Your task to perform on an android device: open app "PUBG MOBILE" (install if not already installed) Image 0: 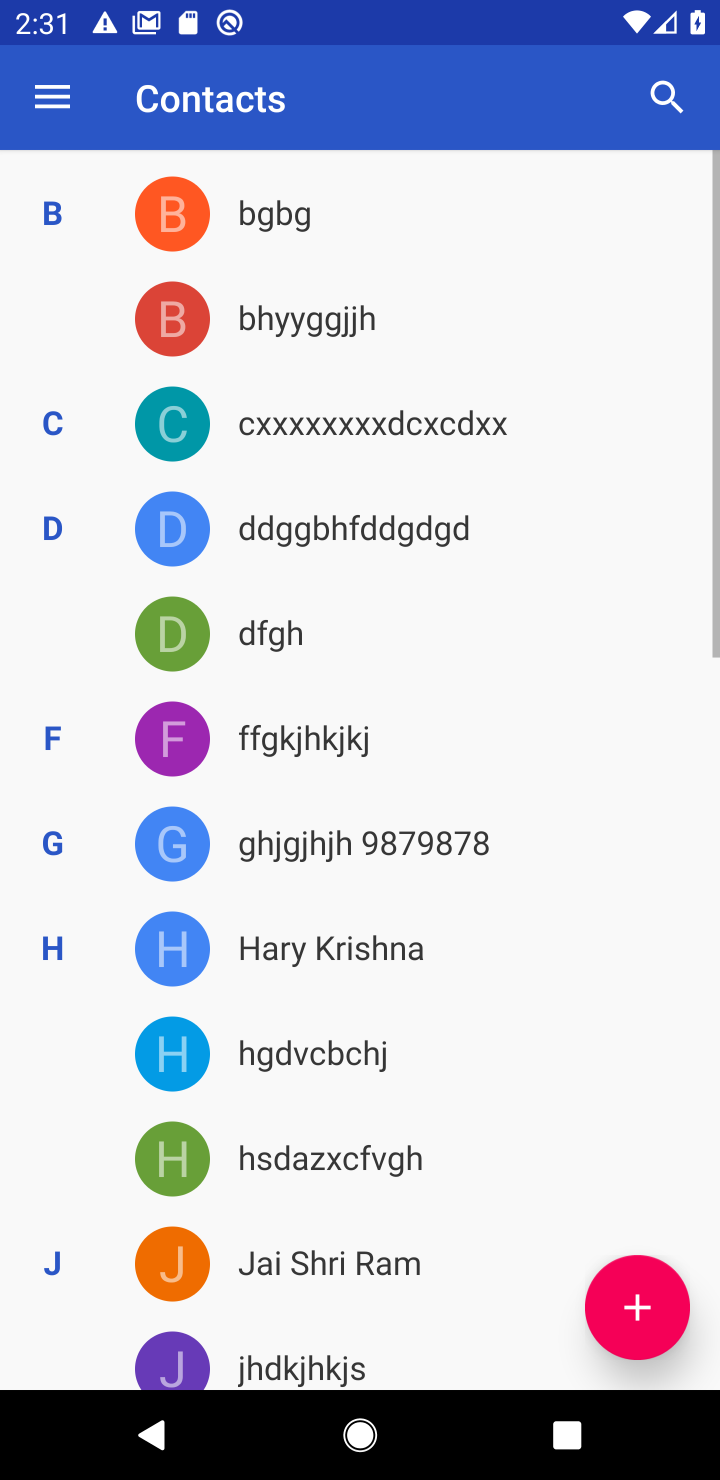
Step 0: press home button
Your task to perform on an android device: open app "PUBG MOBILE" (install if not already installed) Image 1: 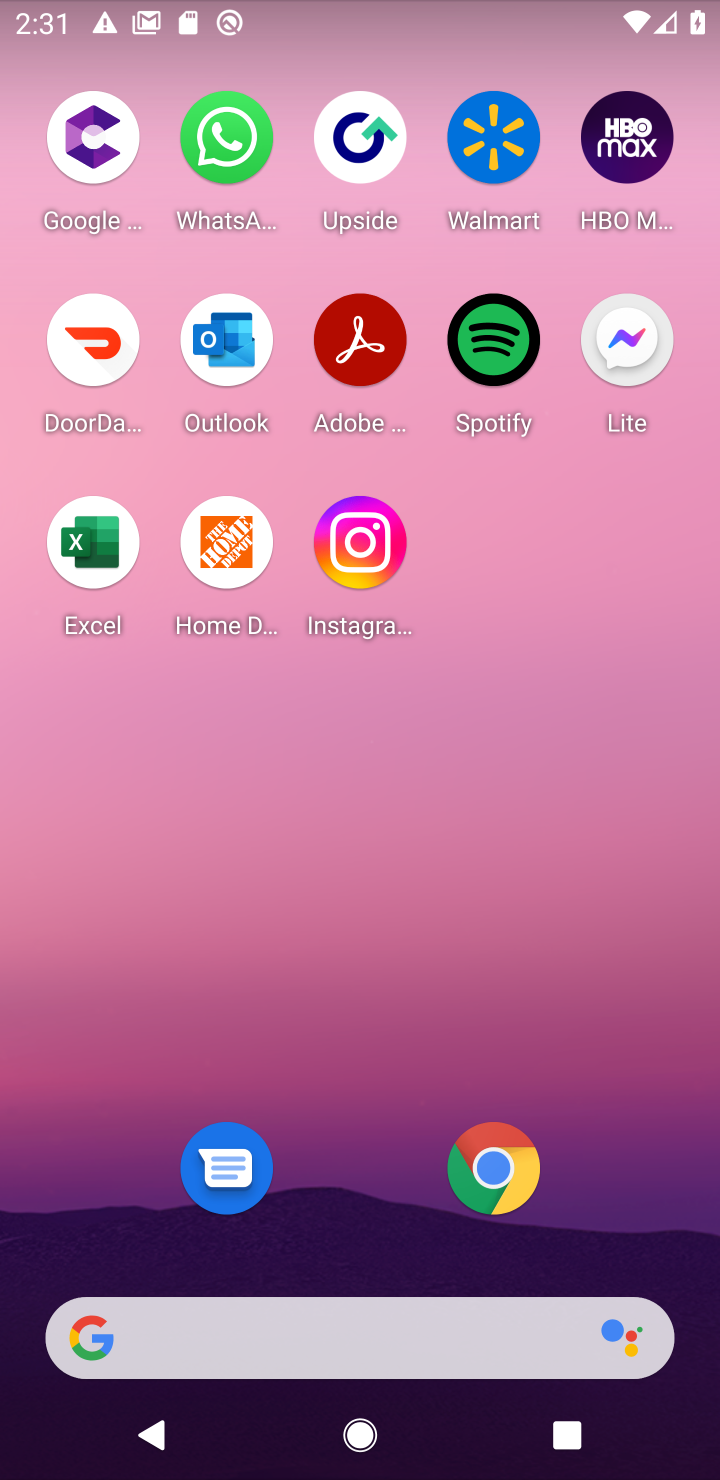
Step 1: drag from (331, 1299) to (419, 105)
Your task to perform on an android device: open app "PUBG MOBILE" (install if not already installed) Image 2: 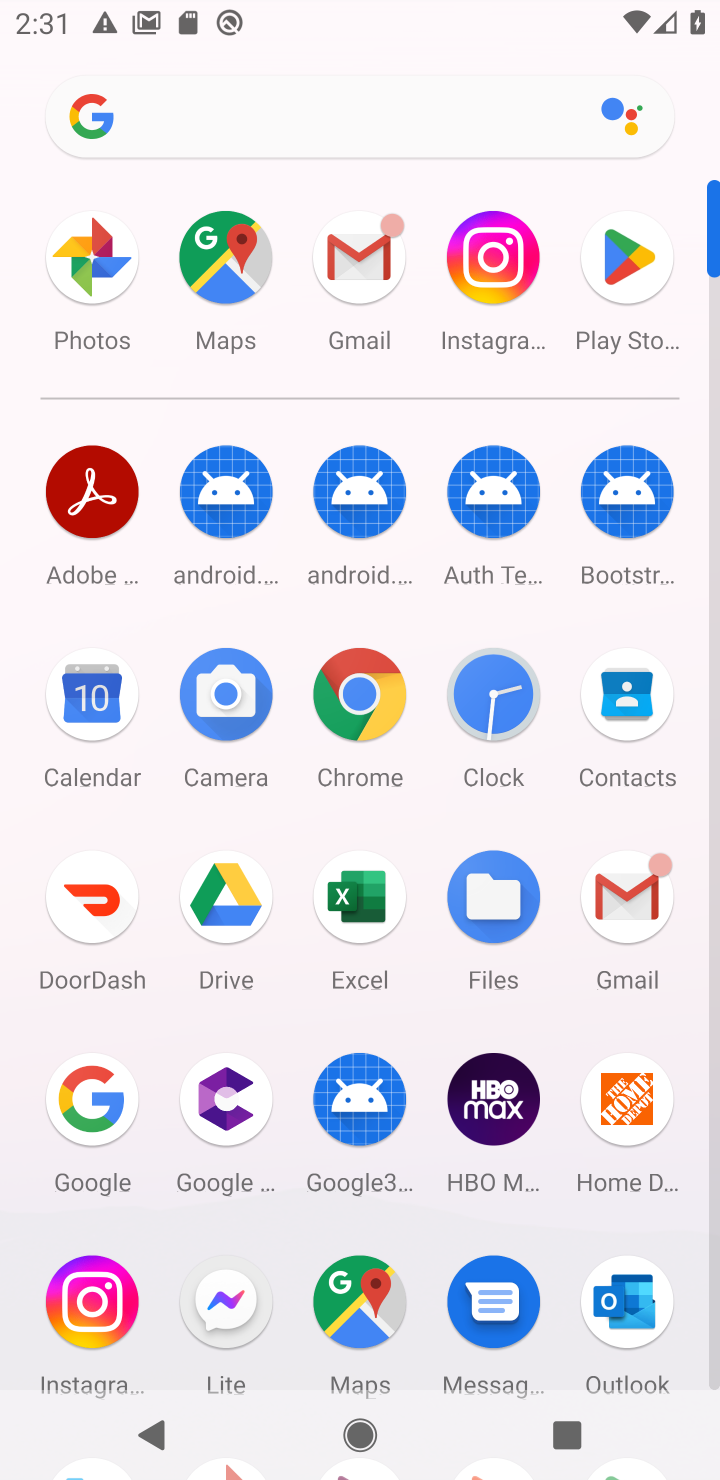
Step 2: click (635, 260)
Your task to perform on an android device: open app "PUBG MOBILE" (install if not already installed) Image 3: 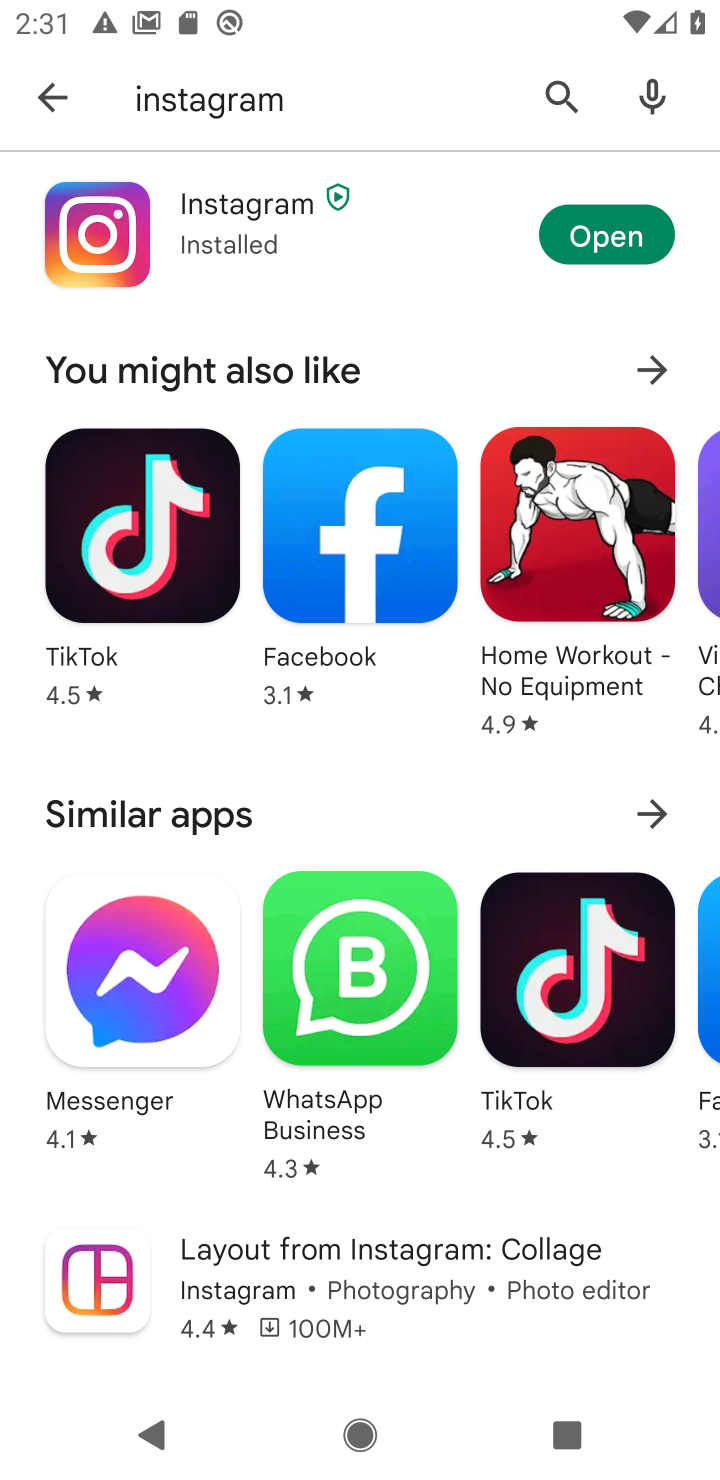
Step 3: press back button
Your task to perform on an android device: open app "PUBG MOBILE" (install if not already installed) Image 4: 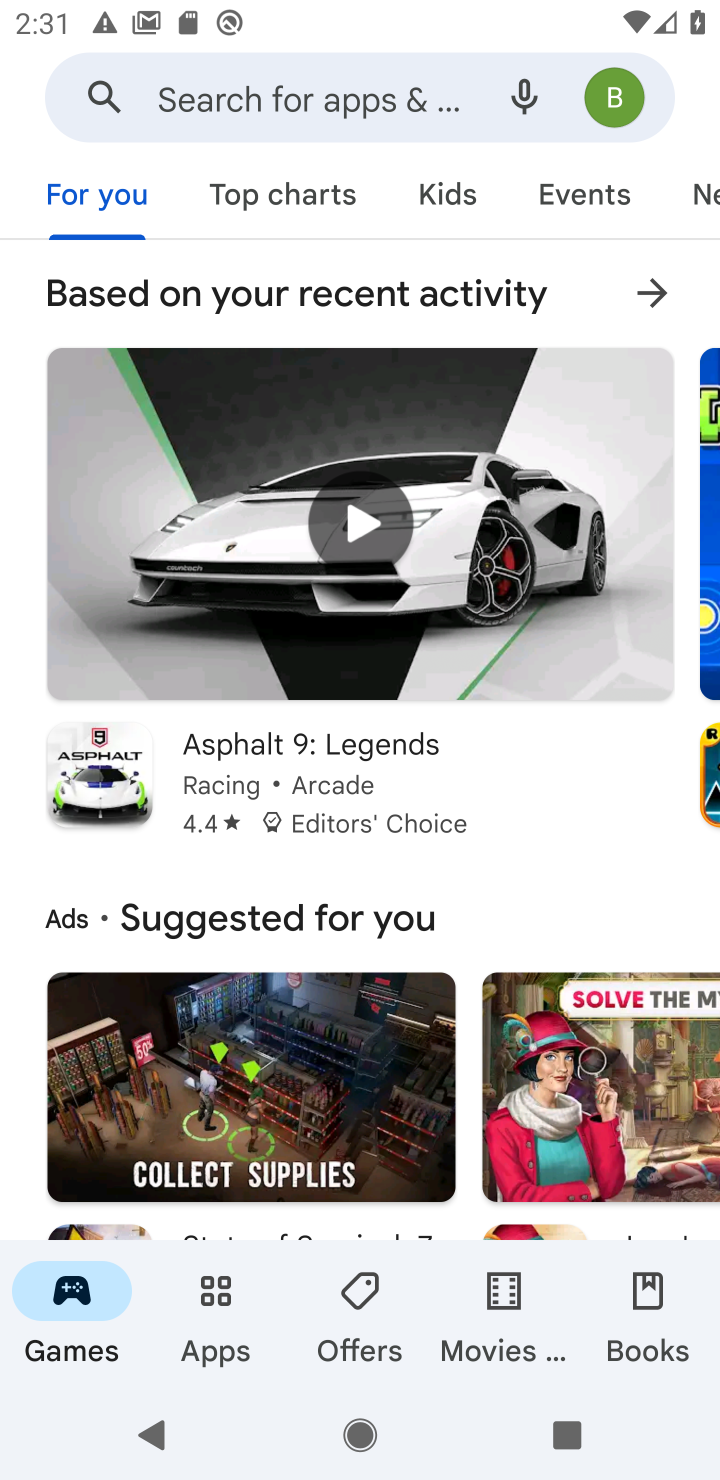
Step 4: click (340, 100)
Your task to perform on an android device: open app "PUBG MOBILE" (install if not already installed) Image 5: 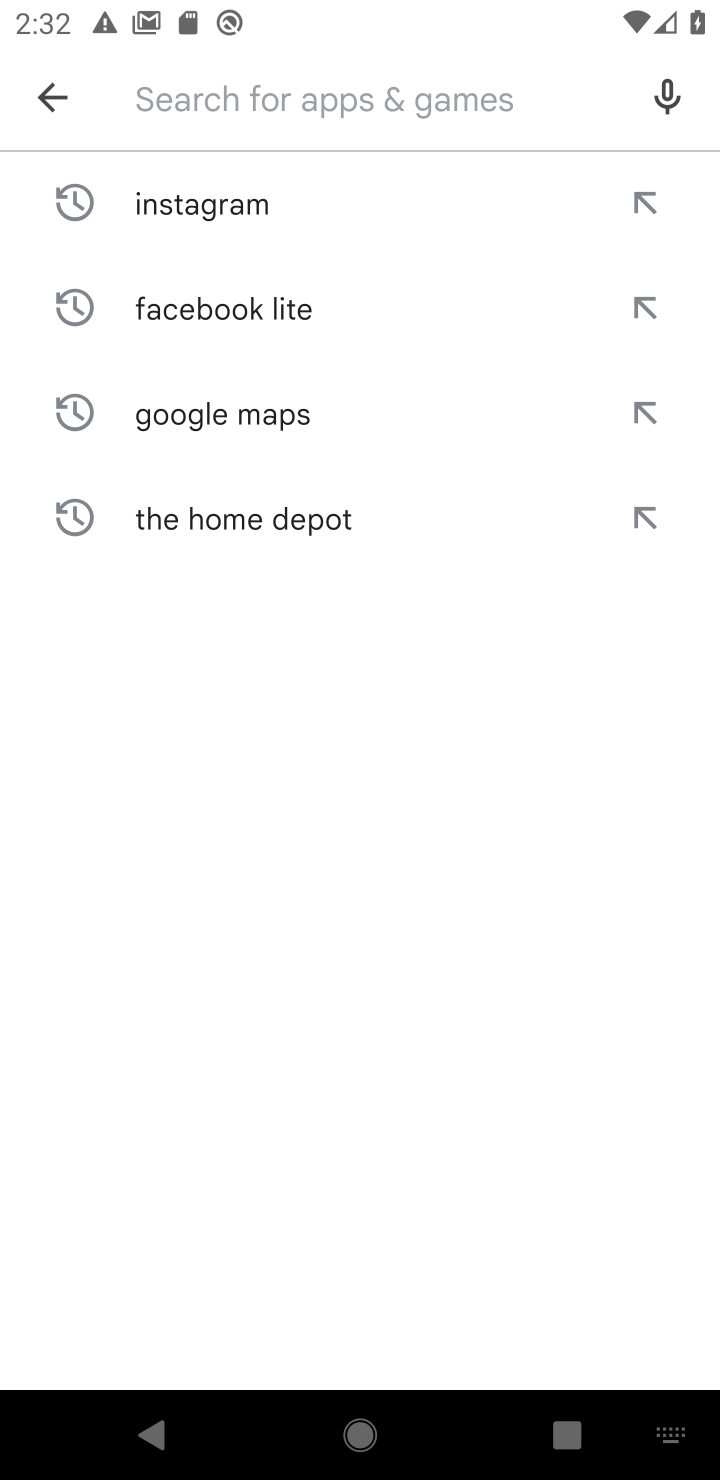
Step 5: type "PUBG MOBILE"
Your task to perform on an android device: open app "PUBG MOBILE" (install if not already installed) Image 6: 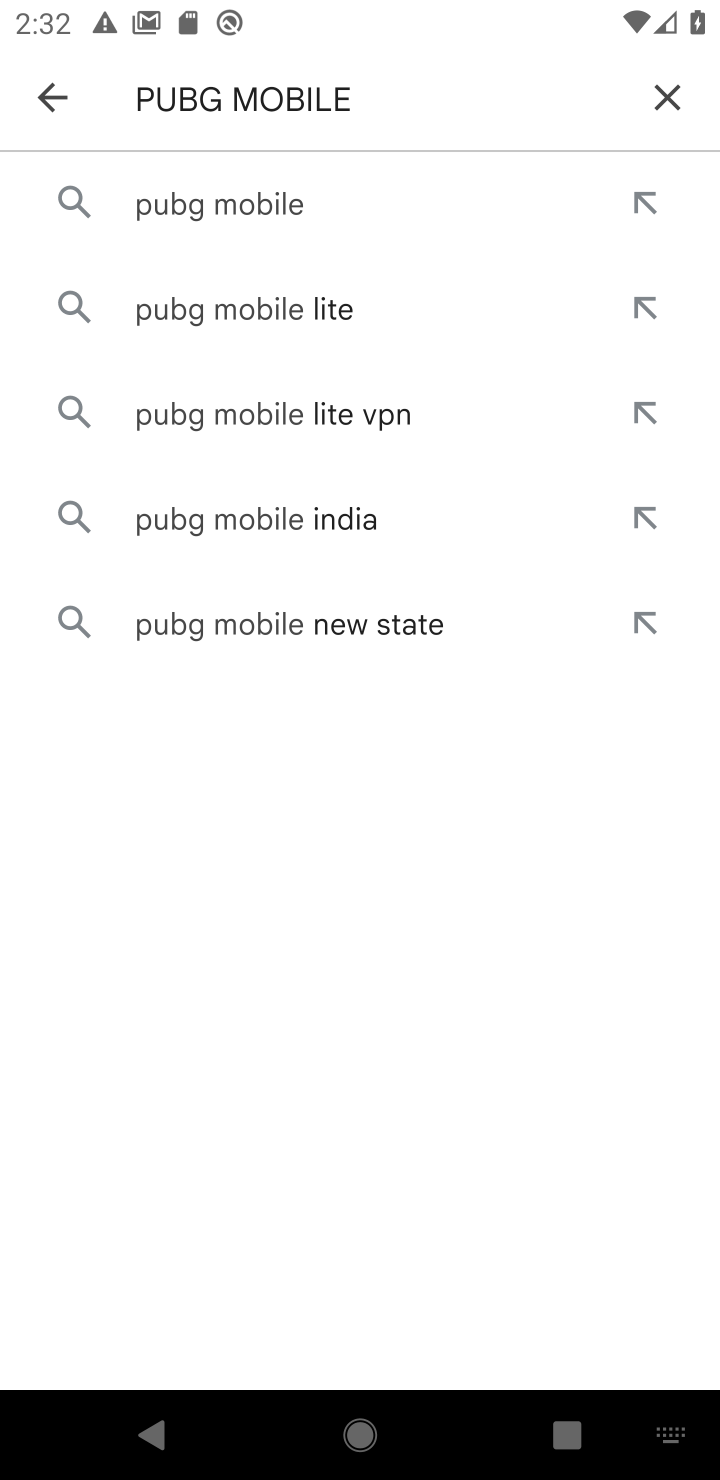
Step 6: click (218, 210)
Your task to perform on an android device: open app "PUBG MOBILE" (install if not already installed) Image 7: 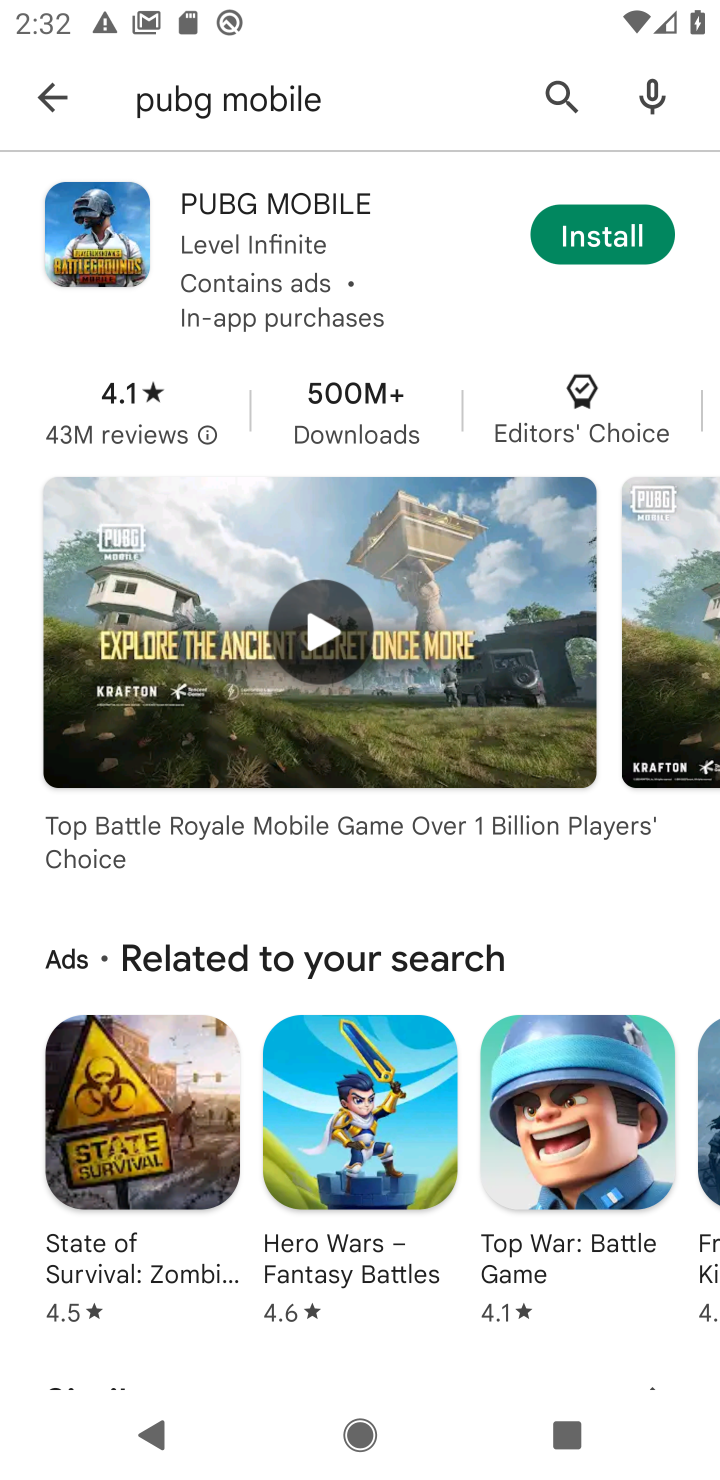
Step 7: click (565, 244)
Your task to perform on an android device: open app "PUBG MOBILE" (install if not already installed) Image 8: 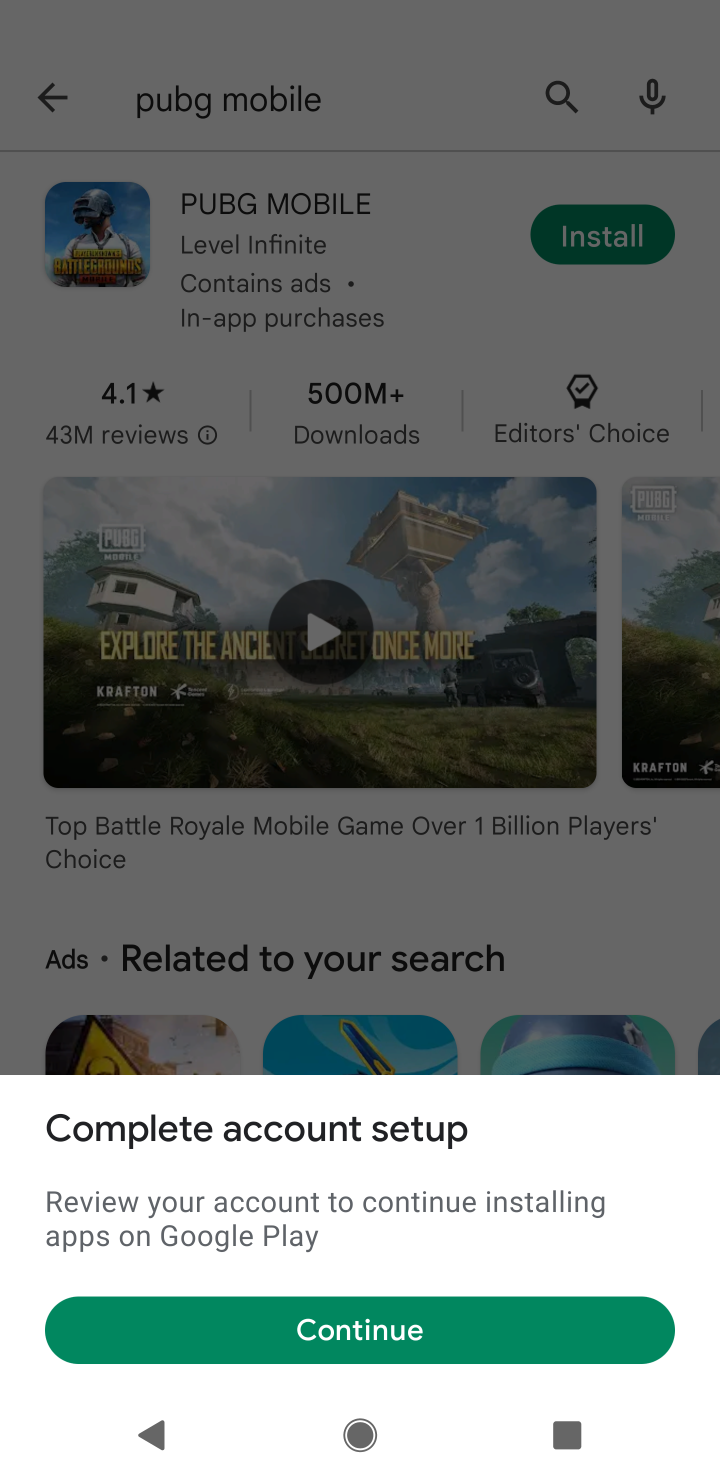
Step 8: click (470, 1328)
Your task to perform on an android device: open app "PUBG MOBILE" (install if not already installed) Image 9: 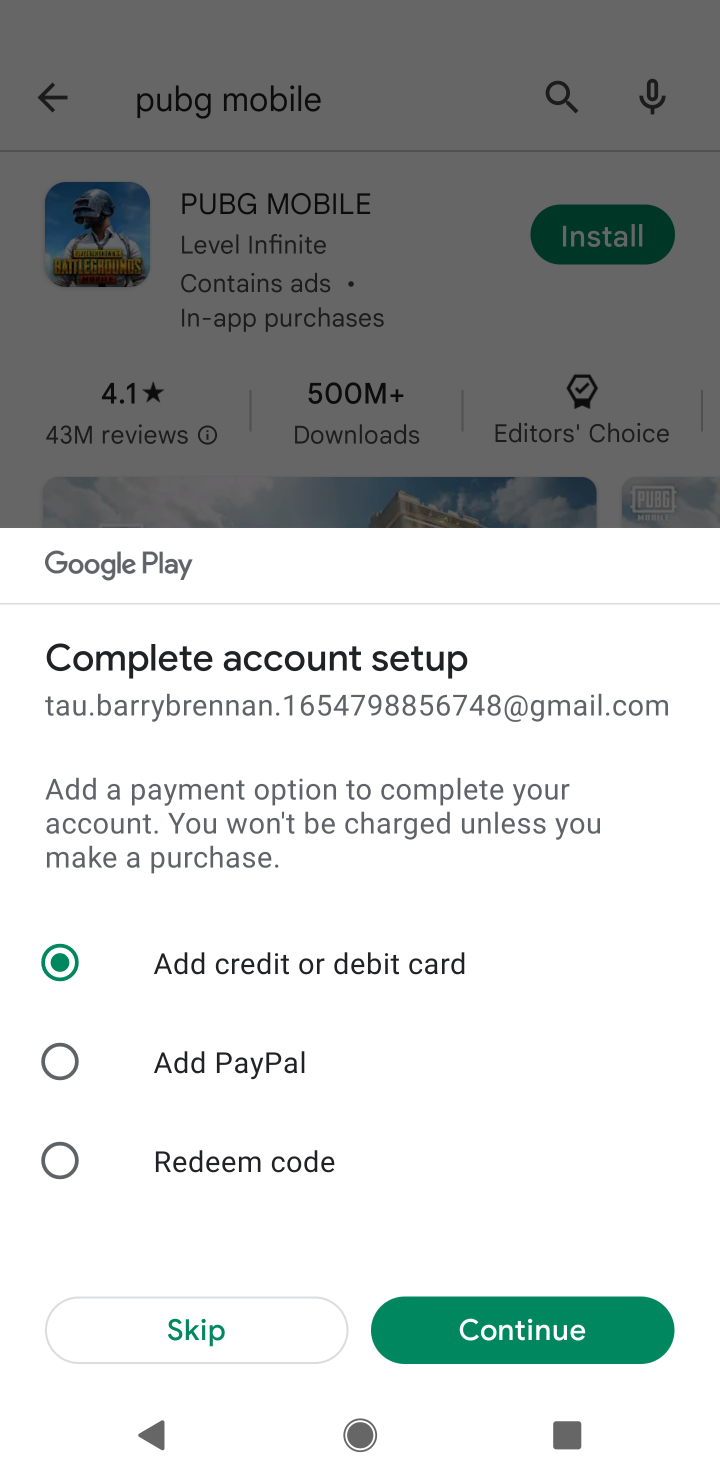
Step 9: click (205, 1317)
Your task to perform on an android device: open app "PUBG MOBILE" (install if not already installed) Image 10: 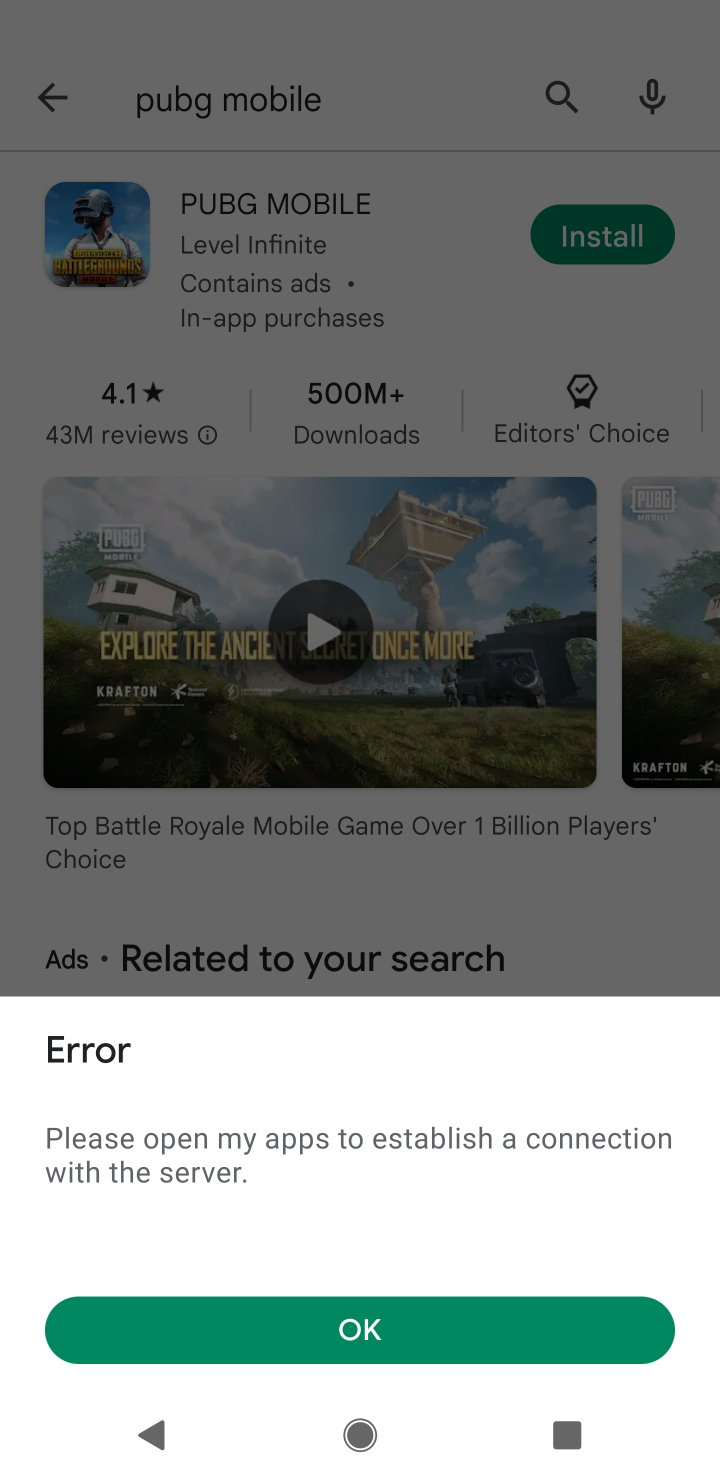
Step 10: click (405, 1353)
Your task to perform on an android device: open app "PUBG MOBILE" (install if not already installed) Image 11: 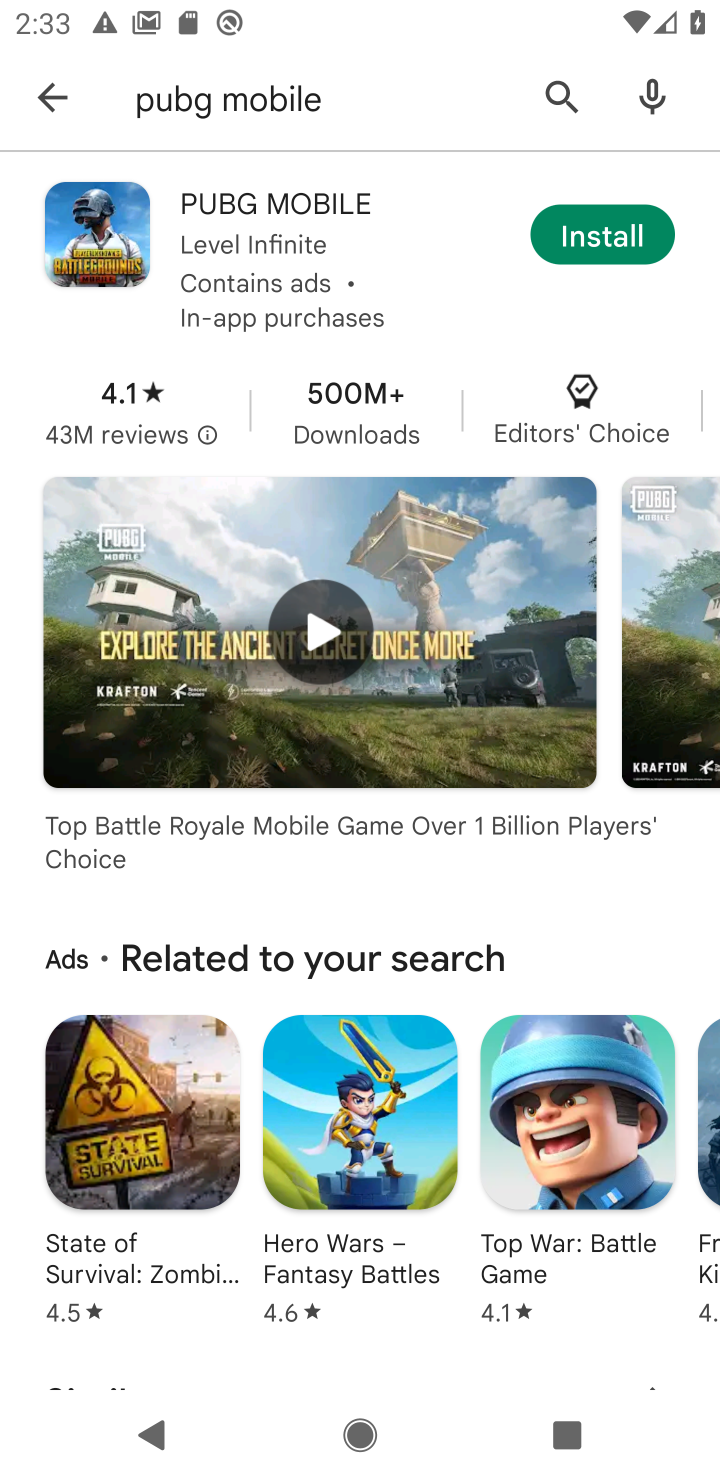
Step 11: click (621, 225)
Your task to perform on an android device: open app "PUBG MOBILE" (install if not already installed) Image 12: 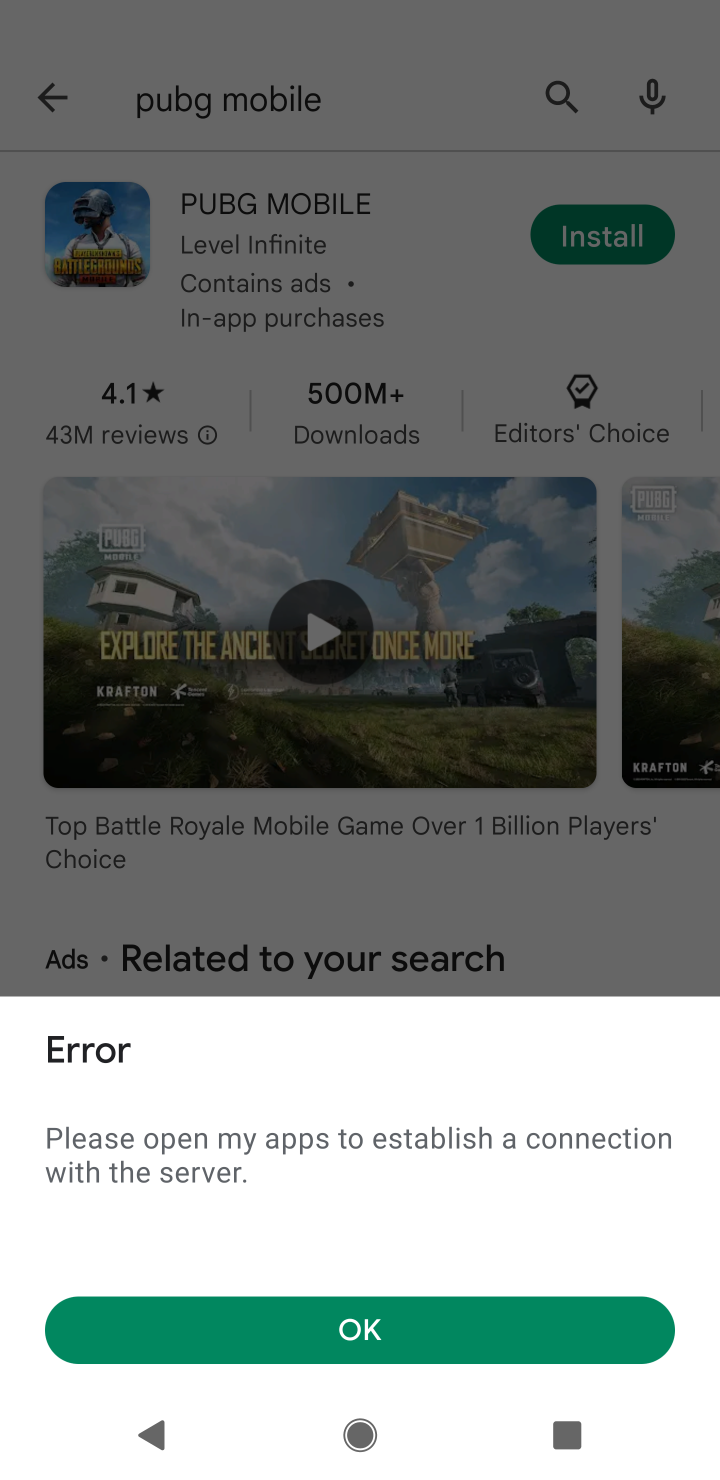
Step 12: click (368, 1319)
Your task to perform on an android device: open app "PUBG MOBILE" (install if not already installed) Image 13: 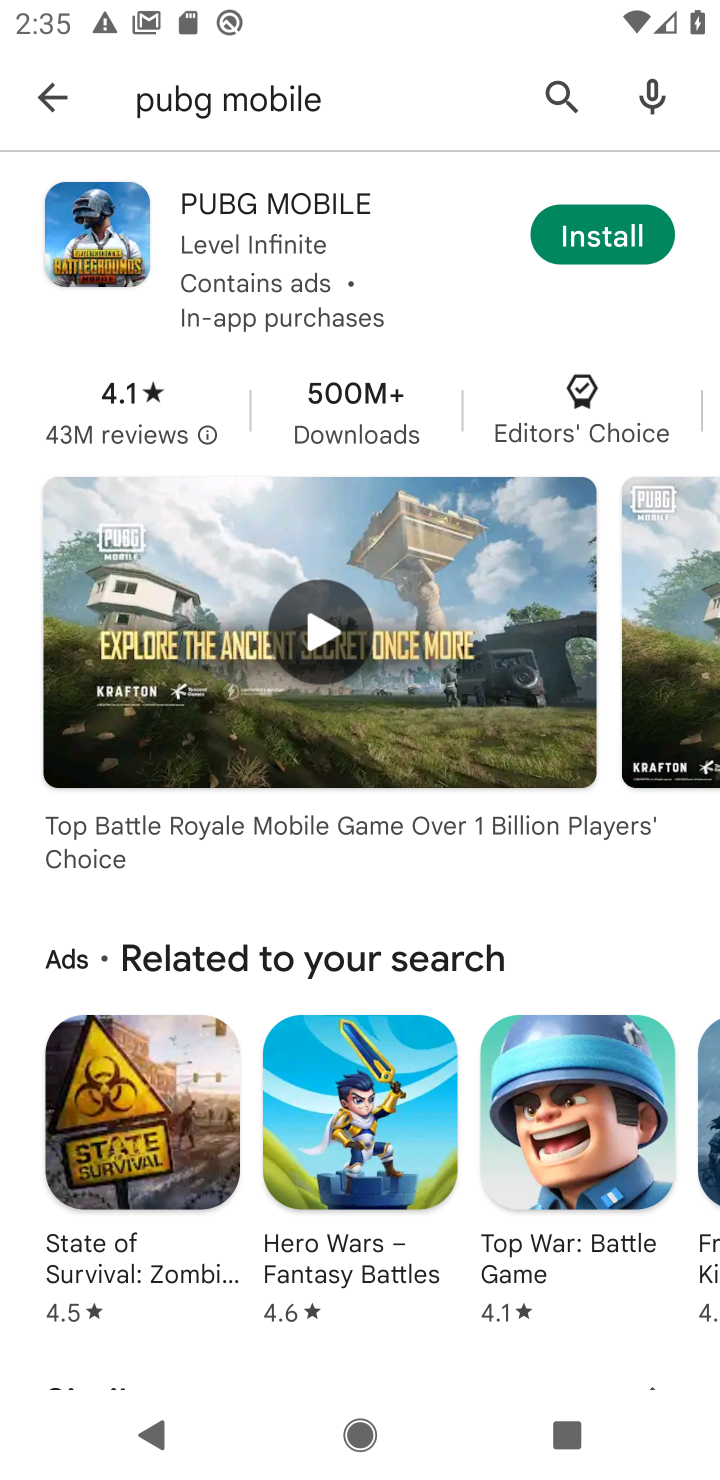
Step 13: task complete